Your task to perform on an android device: move an email to a new category in the gmail app Image 0: 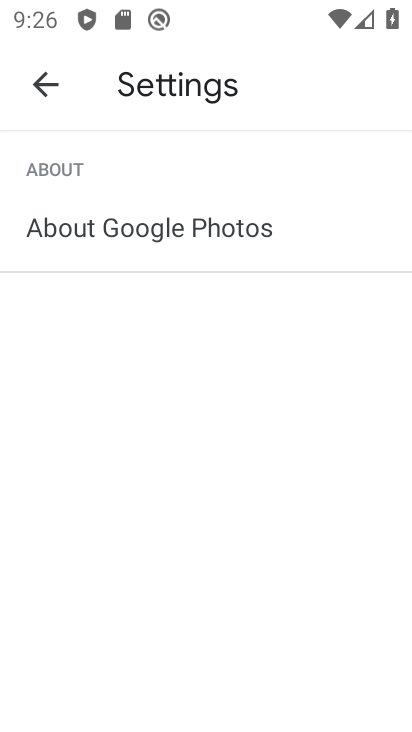
Step 0: press home button
Your task to perform on an android device: move an email to a new category in the gmail app Image 1: 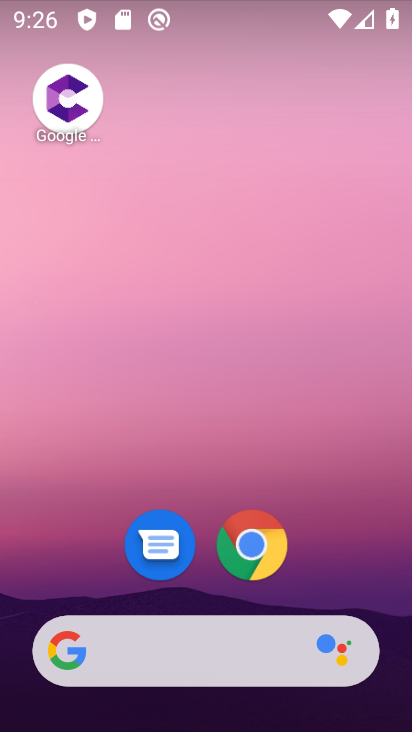
Step 1: drag from (328, 537) to (354, 105)
Your task to perform on an android device: move an email to a new category in the gmail app Image 2: 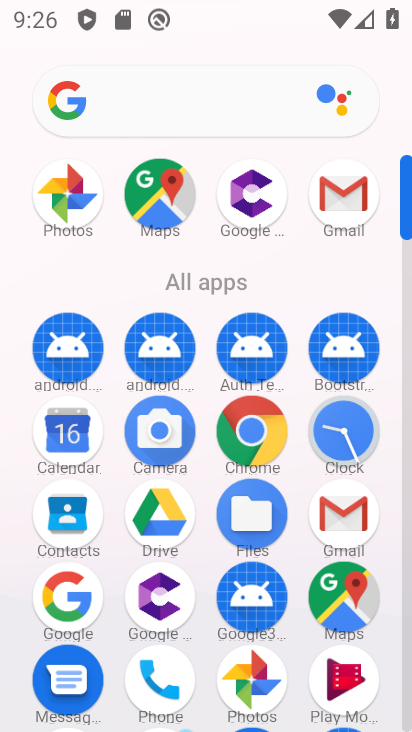
Step 2: click (336, 212)
Your task to perform on an android device: move an email to a new category in the gmail app Image 3: 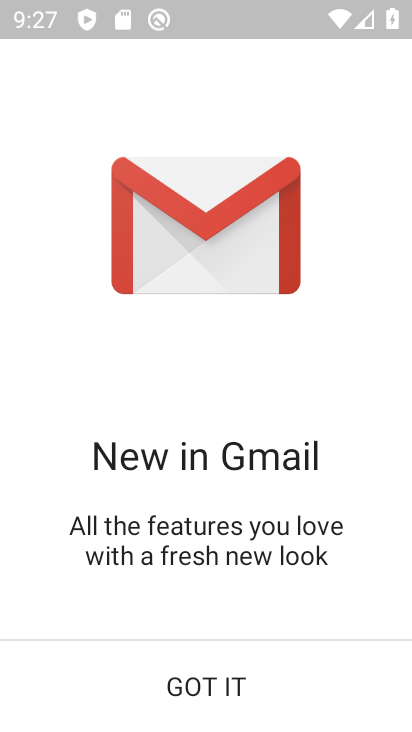
Step 3: click (249, 688)
Your task to perform on an android device: move an email to a new category in the gmail app Image 4: 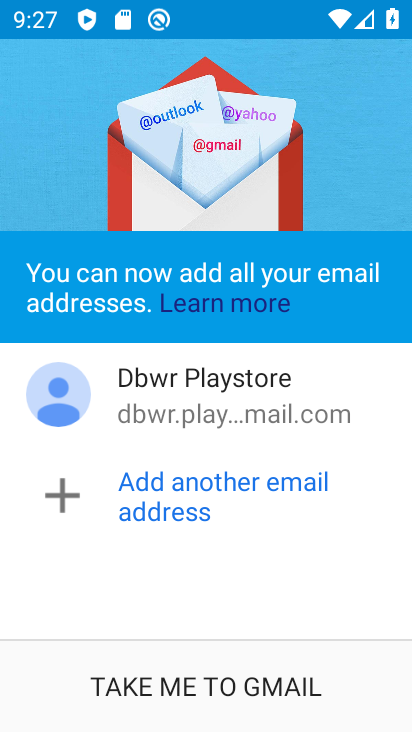
Step 4: click (245, 696)
Your task to perform on an android device: move an email to a new category in the gmail app Image 5: 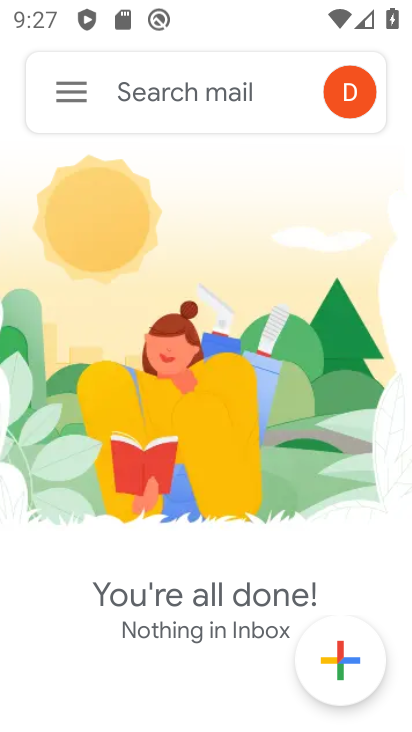
Step 5: click (70, 93)
Your task to perform on an android device: move an email to a new category in the gmail app Image 6: 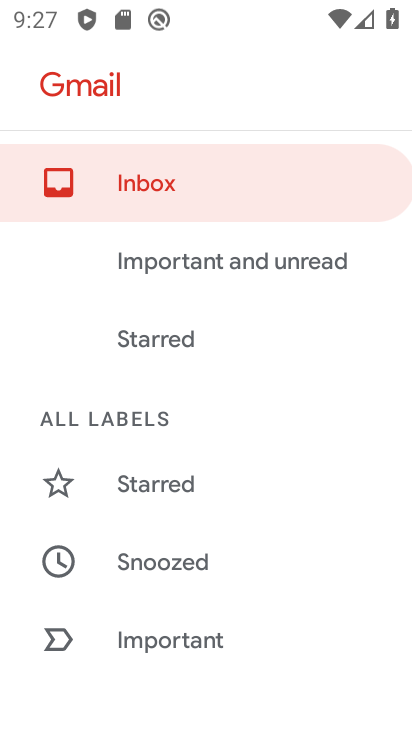
Step 6: click (161, 184)
Your task to perform on an android device: move an email to a new category in the gmail app Image 7: 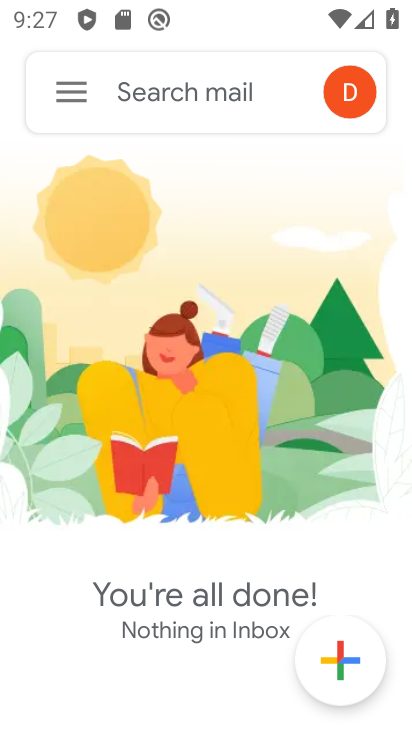
Step 7: task complete